Your task to perform on an android device: manage bookmarks in the chrome app Image 0: 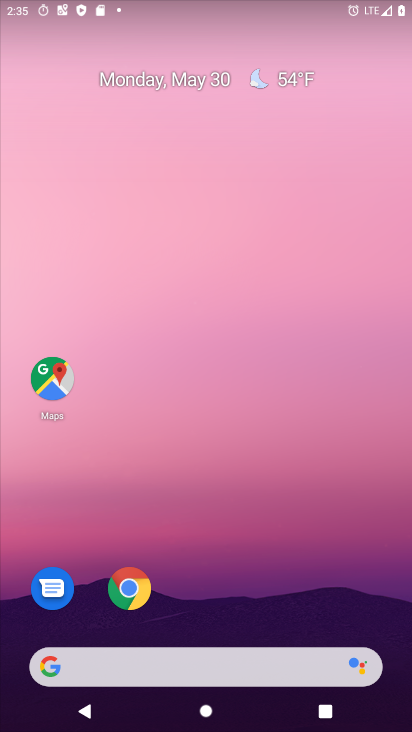
Step 0: click (127, 587)
Your task to perform on an android device: manage bookmarks in the chrome app Image 1: 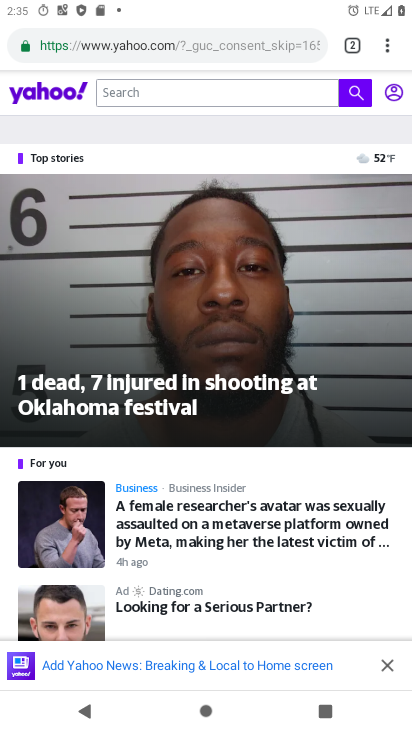
Step 1: click (383, 45)
Your task to perform on an android device: manage bookmarks in the chrome app Image 2: 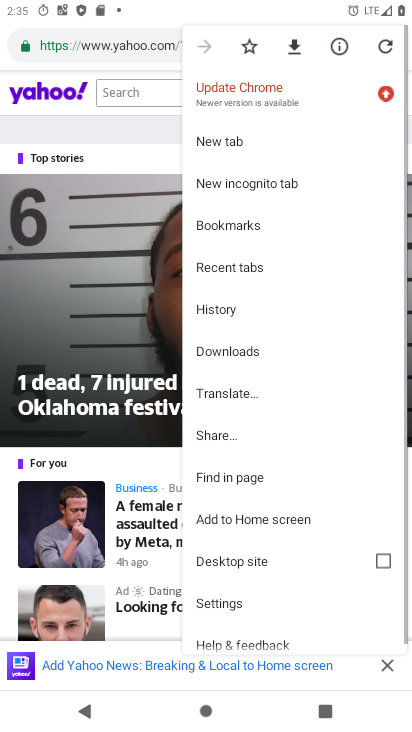
Step 2: click (243, 234)
Your task to perform on an android device: manage bookmarks in the chrome app Image 3: 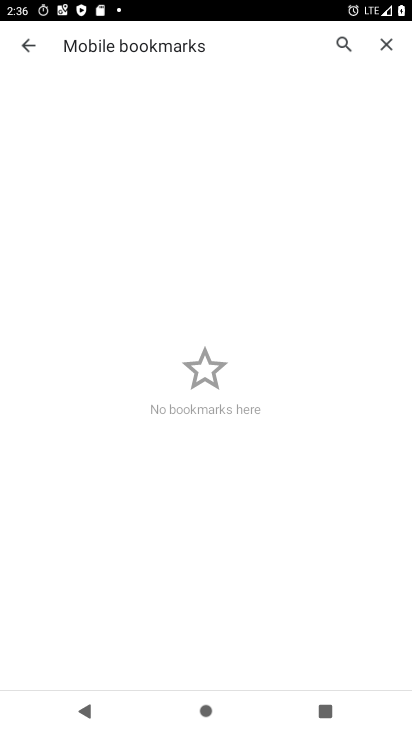
Step 3: task complete